Your task to perform on an android device: turn on location history Image 0: 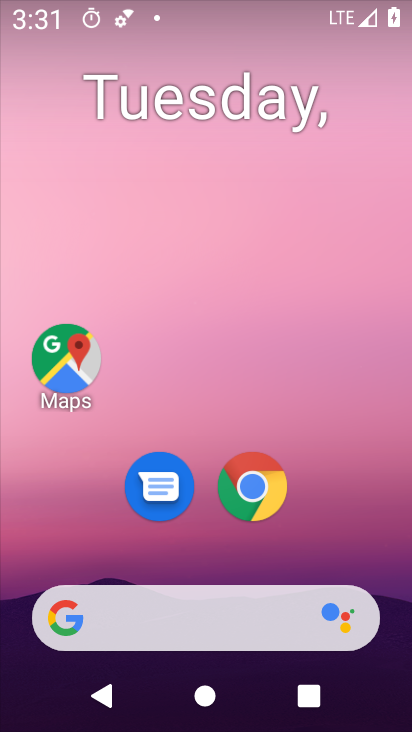
Step 0: press home button
Your task to perform on an android device: turn on location history Image 1: 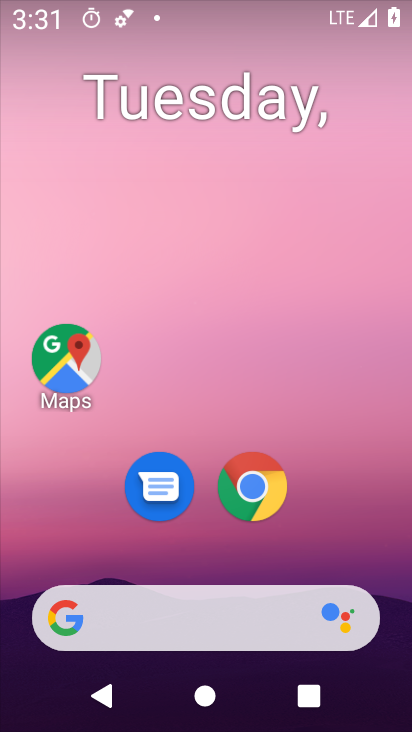
Step 1: drag from (367, 530) to (353, 54)
Your task to perform on an android device: turn on location history Image 2: 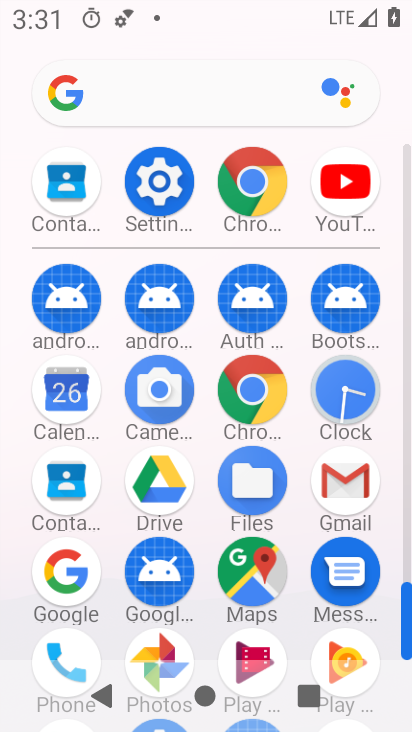
Step 2: click (173, 191)
Your task to perform on an android device: turn on location history Image 3: 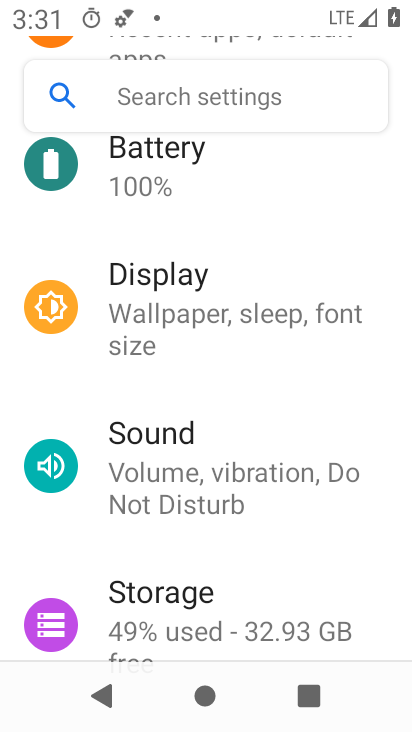
Step 3: drag from (326, 221) to (348, 336)
Your task to perform on an android device: turn on location history Image 4: 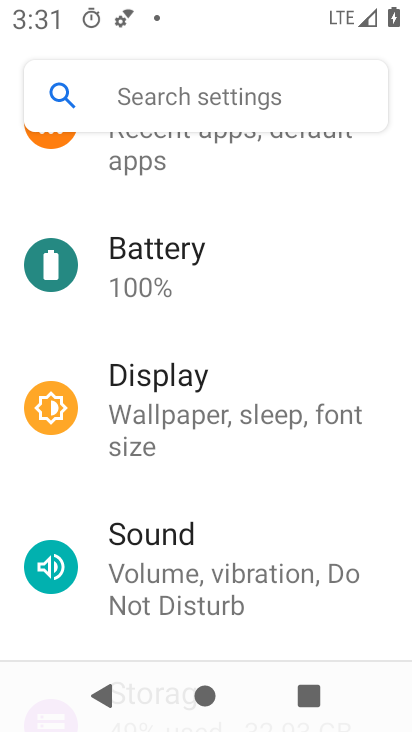
Step 4: drag from (350, 265) to (367, 379)
Your task to perform on an android device: turn on location history Image 5: 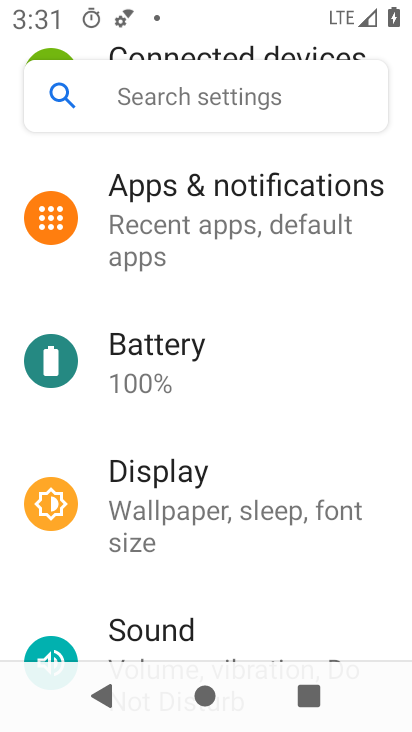
Step 5: drag from (369, 235) to (375, 400)
Your task to perform on an android device: turn on location history Image 6: 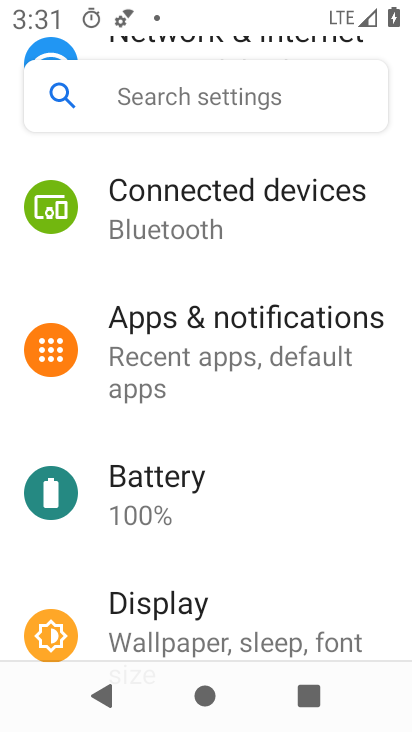
Step 6: drag from (371, 268) to (378, 471)
Your task to perform on an android device: turn on location history Image 7: 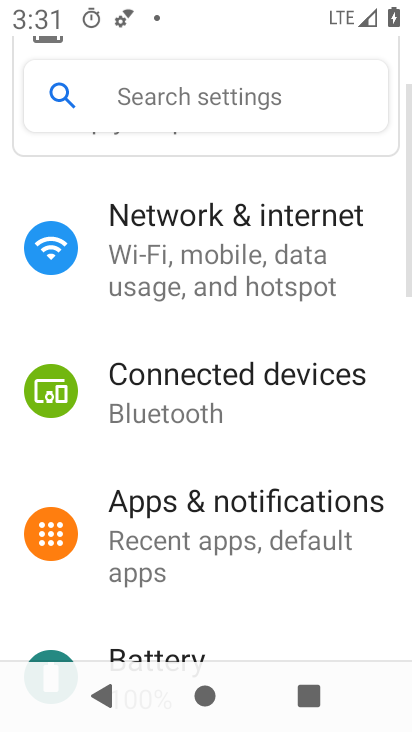
Step 7: drag from (373, 470) to (367, 330)
Your task to perform on an android device: turn on location history Image 8: 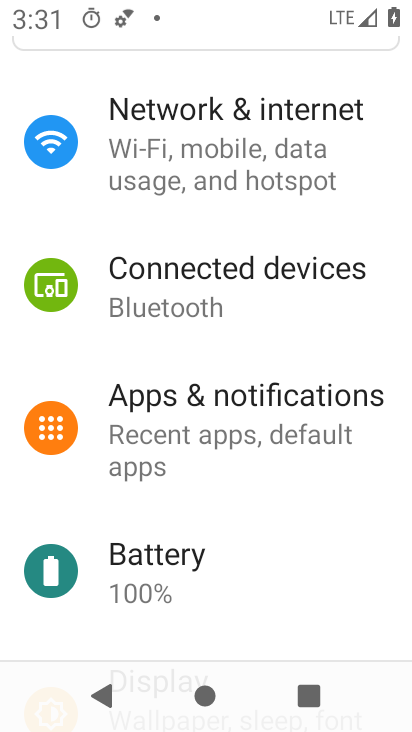
Step 8: drag from (344, 481) to (331, 353)
Your task to perform on an android device: turn on location history Image 9: 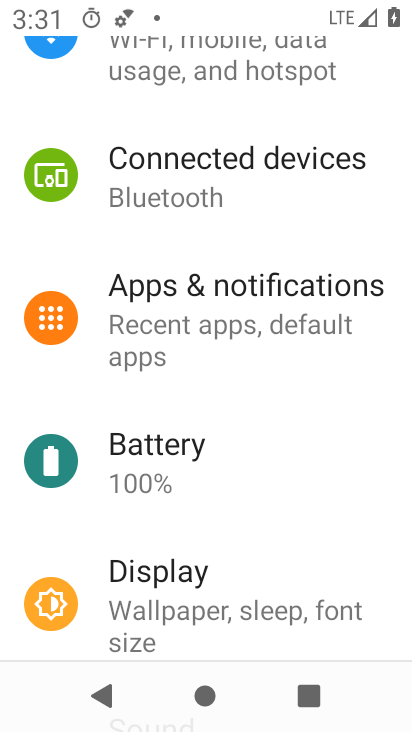
Step 9: drag from (335, 483) to (337, 354)
Your task to perform on an android device: turn on location history Image 10: 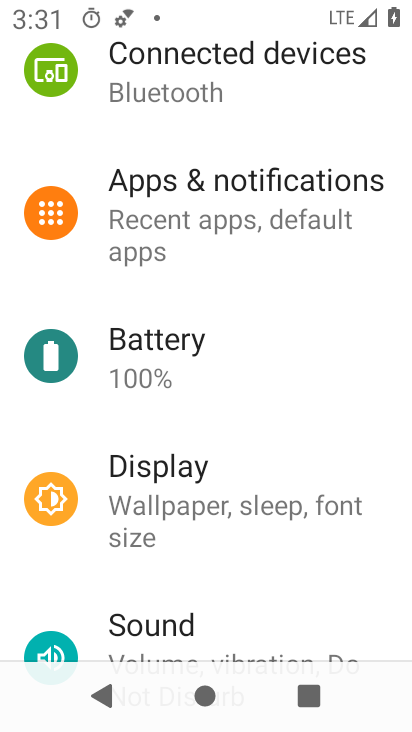
Step 10: drag from (338, 530) to (329, 342)
Your task to perform on an android device: turn on location history Image 11: 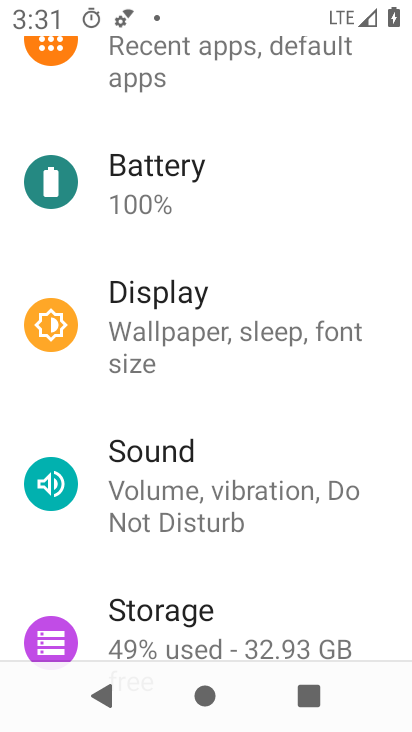
Step 11: drag from (322, 545) to (324, 386)
Your task to perform on an android device: turn on location history Image 12: 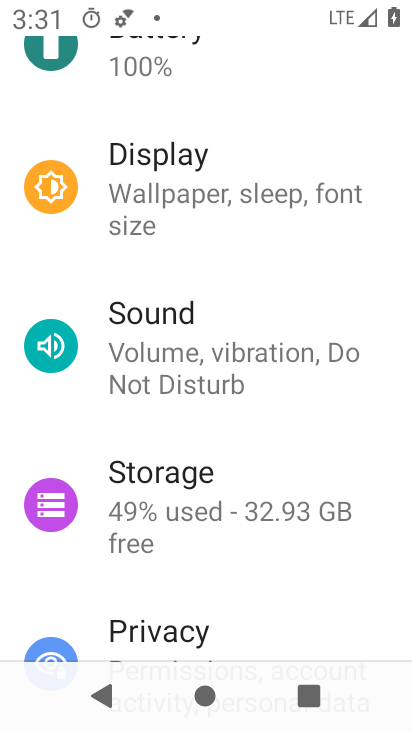
Step 12: drag from (317, 550) to (313, 424)
Your task to perform on an android device: turn on location history Image 13: 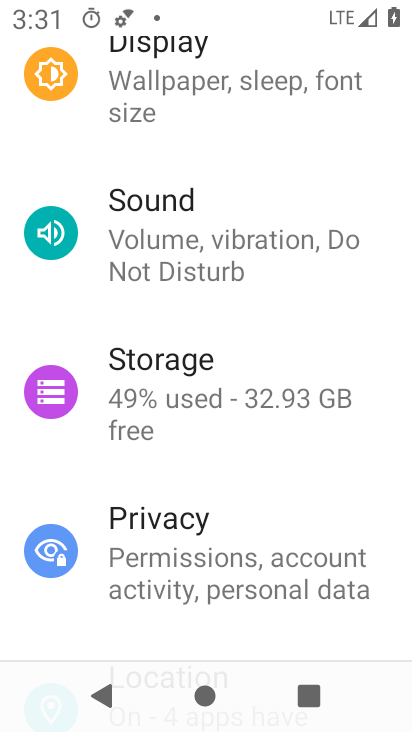
Step 13: drag from (314, 535) to (315, 370)
Your task to perform on an android device: turn on location history Image 14: 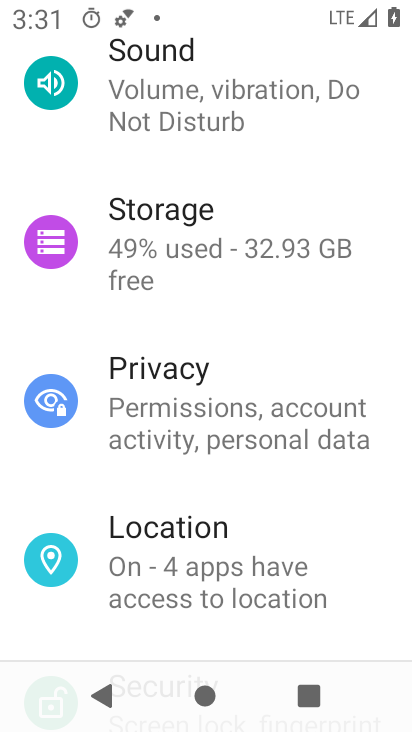
Step 14: drag from (320, 513) to (321, 396)
Your task to perform on an android device: turn on location history Image 15: 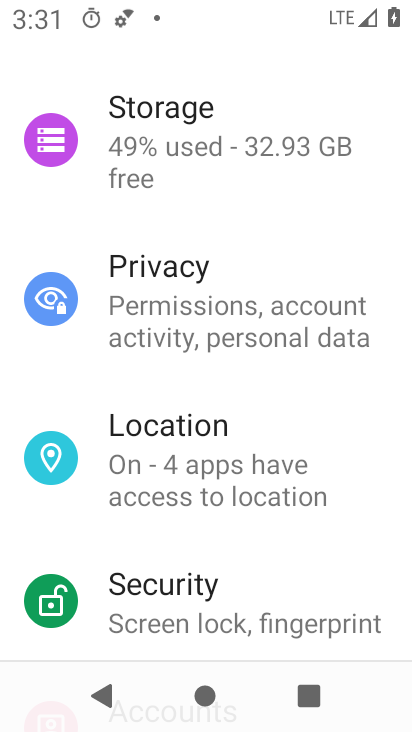
Step 15: click (323, 482)
Your task to perform on an android device: turn on location history Image 16: 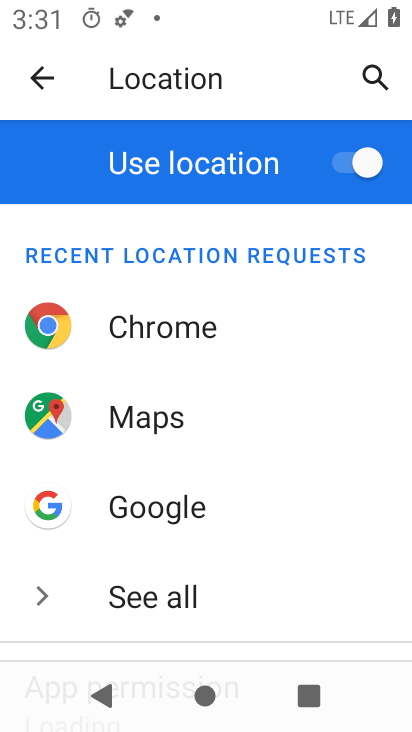
Step 16: drag from (318, 484) to (318, 362)
Your task to perform on an android device: turn on location history Image 17: 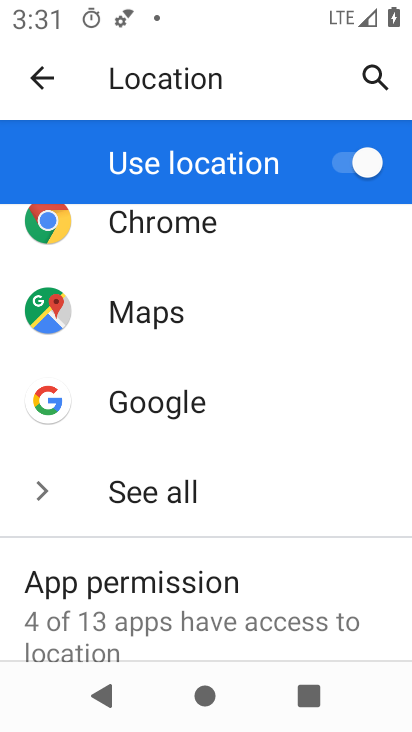
Step 17: drag from (304, 526) to (293, 352)
Your task to perform on an android device: turn on location history Image 18: 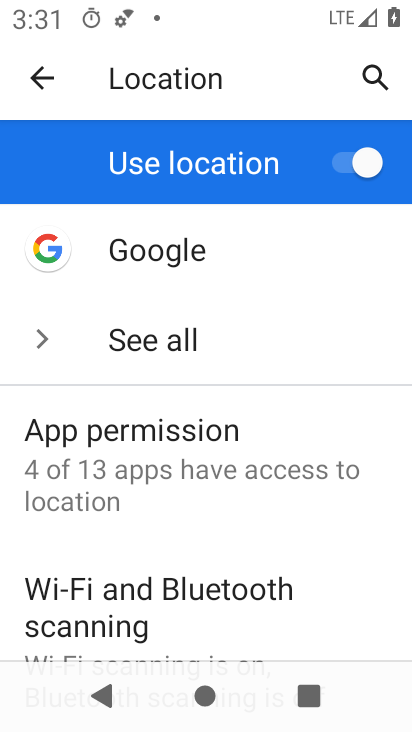
Step 18: drag from (331, 561) to (320, 369)
Your task to perform on an android device: turn on location history Image 19: 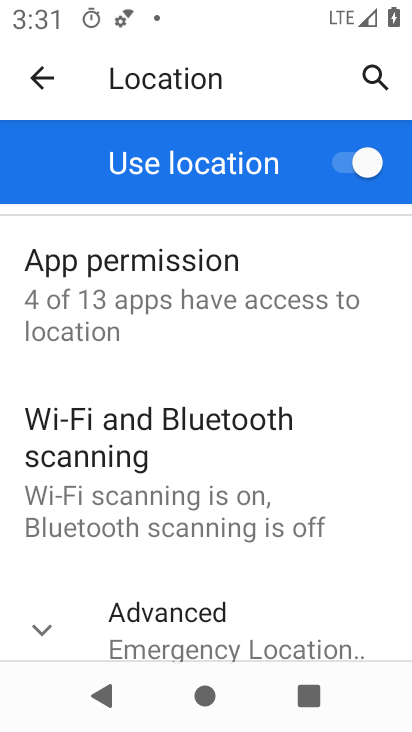
Step 19: drag from (320, 584) to (322, 426)
Your task to perform on an android device: turn on location history Image 20: 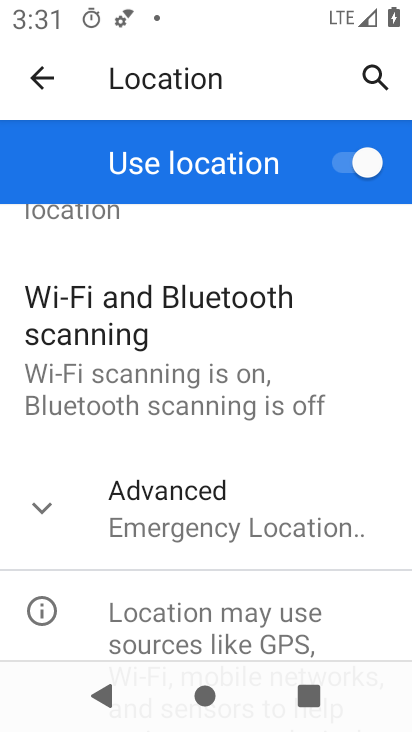
Step 20: click (286, 498)
Your task to perform on an android device: turn on location history Image 21: 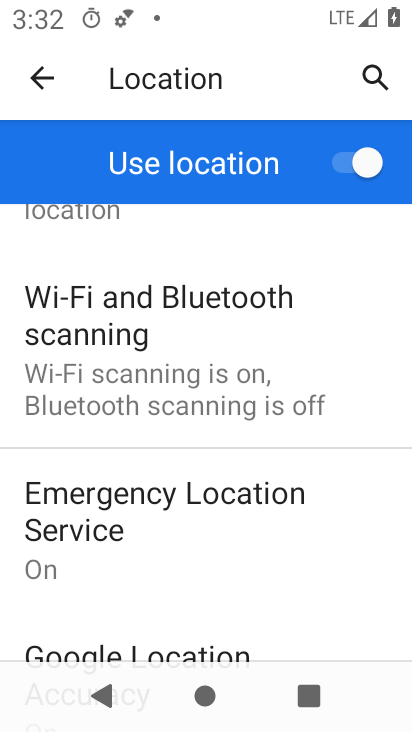
Step 21: drag from (294, 575) to (294, 439)
Your task to perform on an android device: turn on location history Image 22: 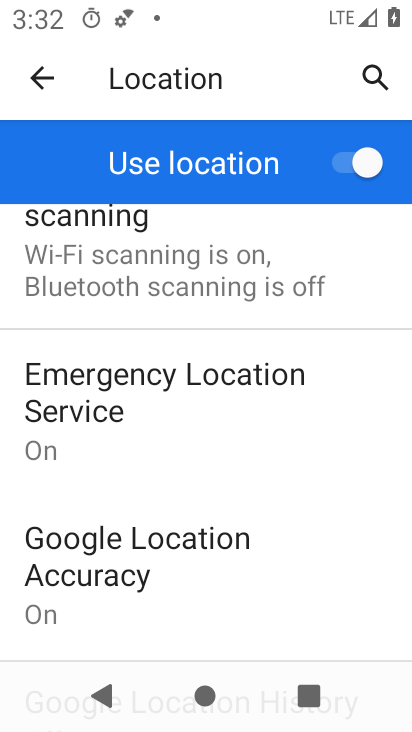
Step 22: drag from (315, 570) to (315, 467)
Your task to perform on an android device: turn on location history Image 23: 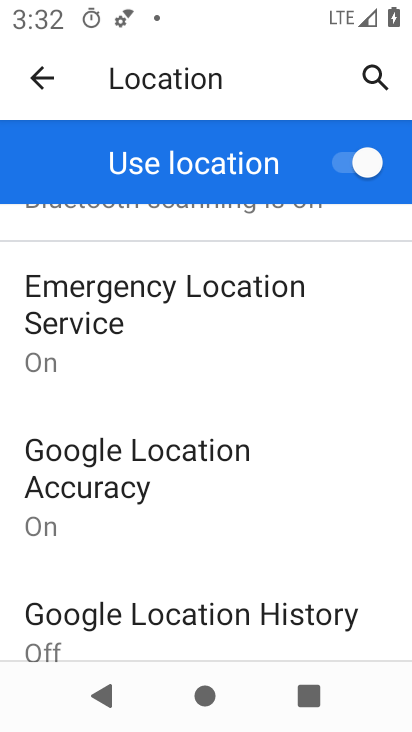
Step 23: drag from (287, 558) to (286, 414)
Your task to perform on an android device: turn on location history Image 24: 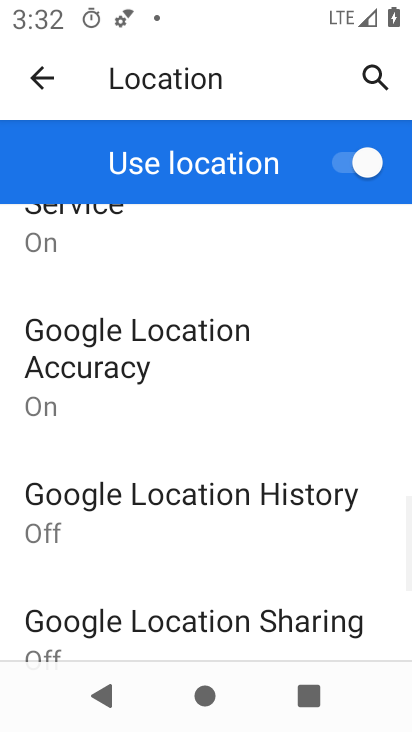
Step 24: click (289, 532)
Your task to perform on an android device: turn on location history Image 25: 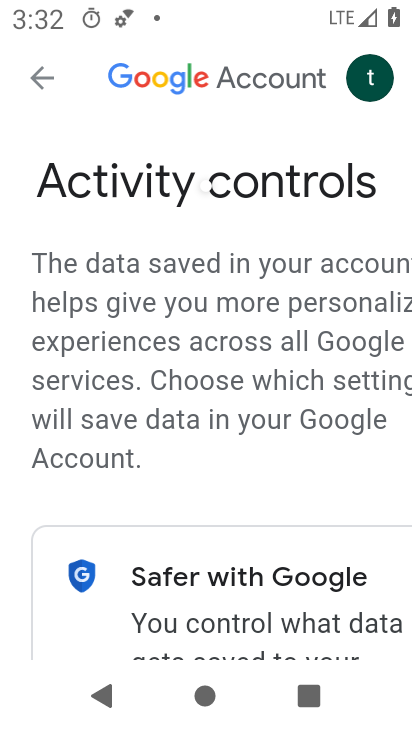
Step 25: task complete